Your task to perform on an android device: turn off location Image 0: 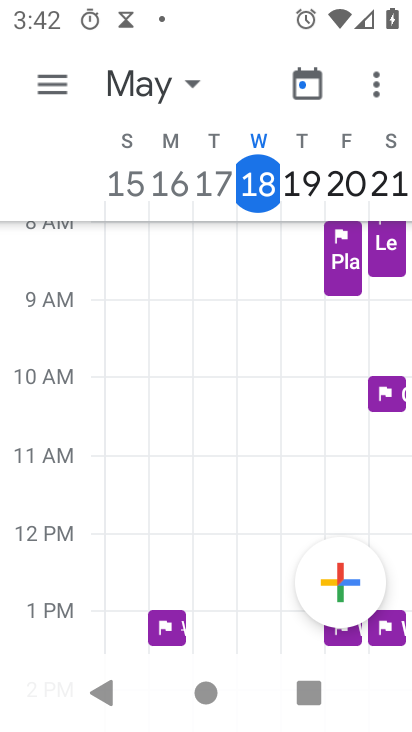
Step 0: press home button
Your task to perform on an android device: turn off location Image 1: 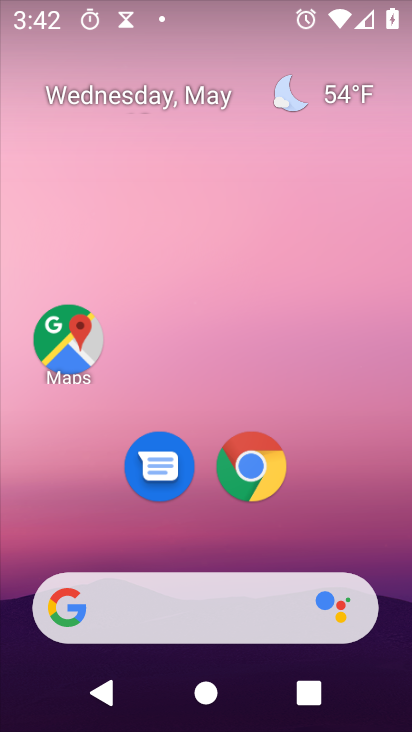
Step 1: drag from (343, 539) to (154, 1)
Your task to perform on an android device: turn off location Image 2: 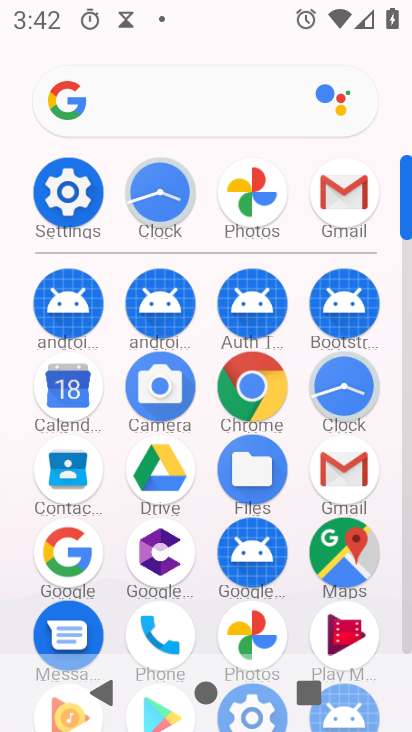
Step 2: click (83, 179)
Your task to perform on an android device: turn off location Image 3: 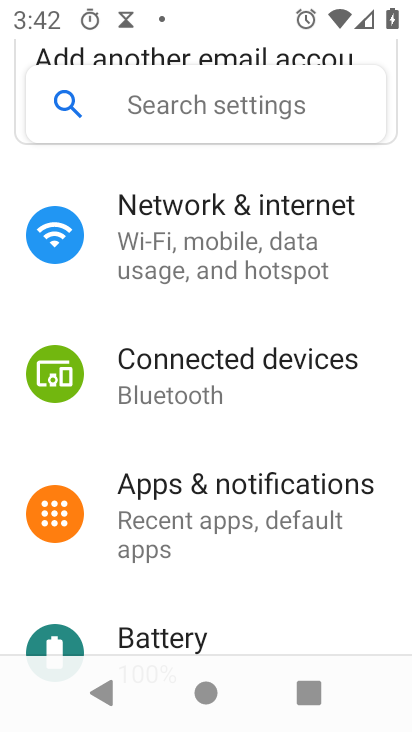
Step 3: drag from (320, 611) to (244, 140)
Your task to perform on an android device: turn off location Image 4: 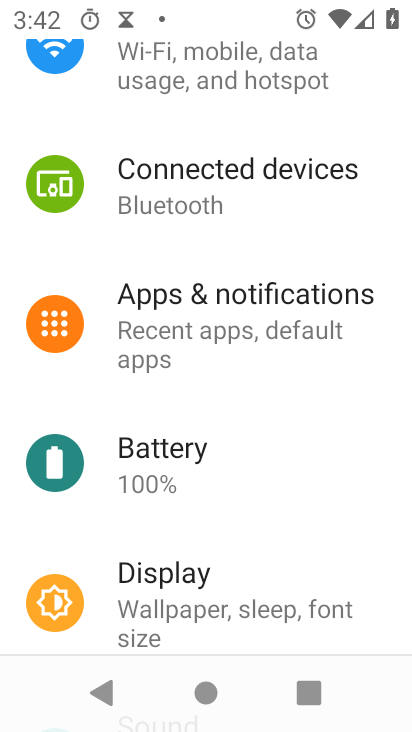
Step 4: drag from (292, 601) to (227, 145)
Your task to perform on an android device: turn off location Image 5: 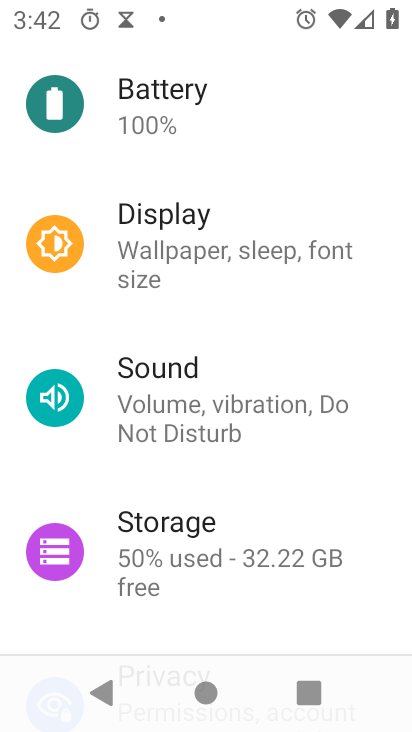
Step 5: drag from (342, 573) to (279, 52)
Your task to perform on an android device: turn off location Image 6: 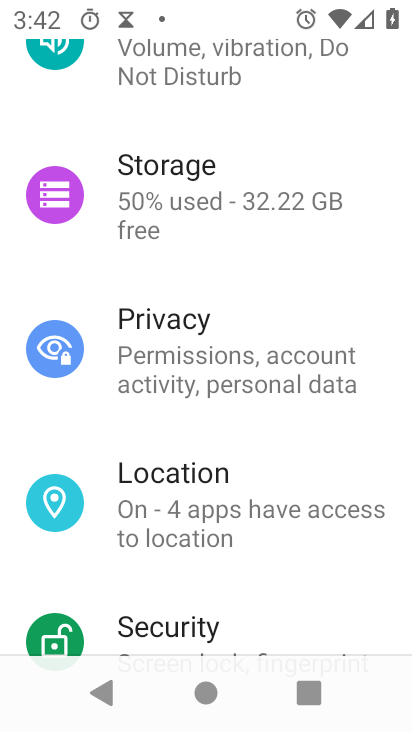
Step 6: click (324, 534)
Your task to perform on an android device: turn off location Image 7: 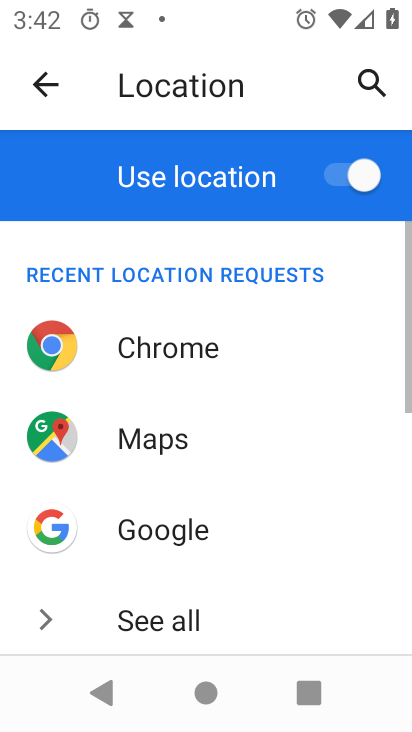
Step 7: click (346, 188)
Your task to perform on an android device: turn off location Image 8: 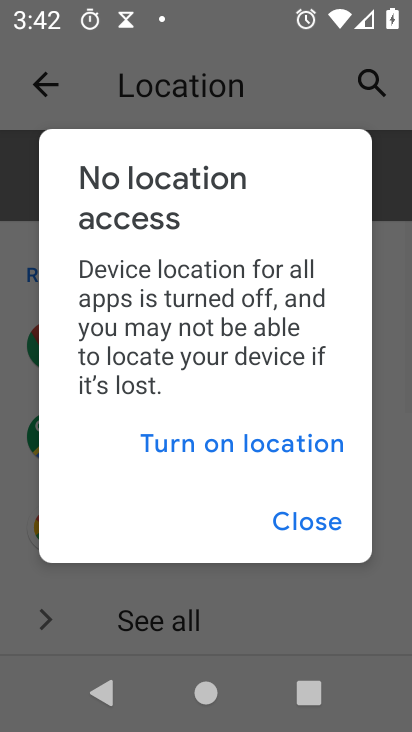
Step 8: task complete